Your task to perform on an android device: Show me popular games on the Play Store Image 0: 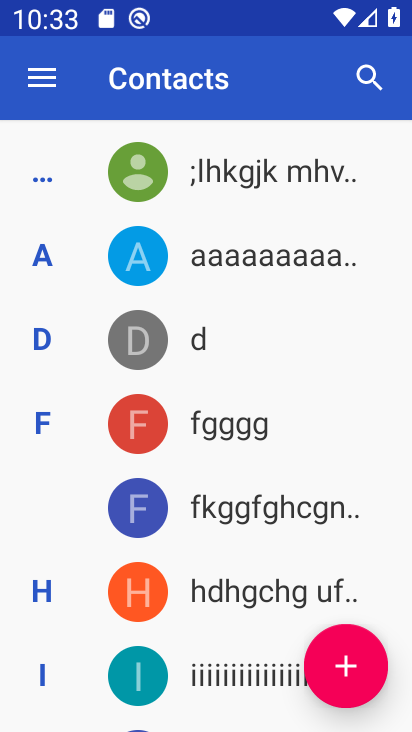
Step 0: press home button
Your task to perform on an android device: Show me popular games on the Play Store Image 1: 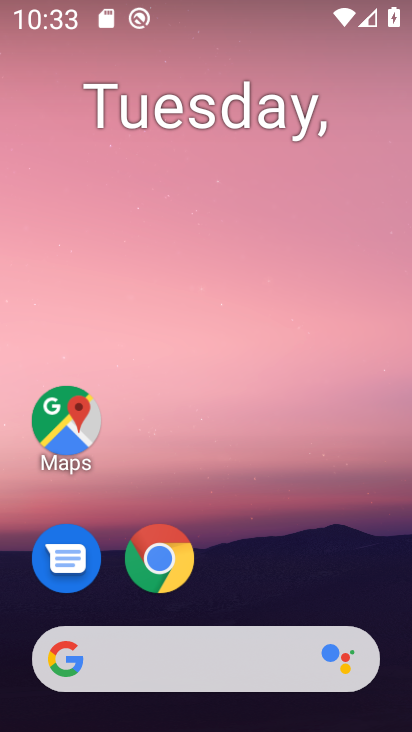
Step 1: drag from (331, 590) to (340, 88)
Your task to perform on an android device: Show me popular games on the Play Store Image 2: 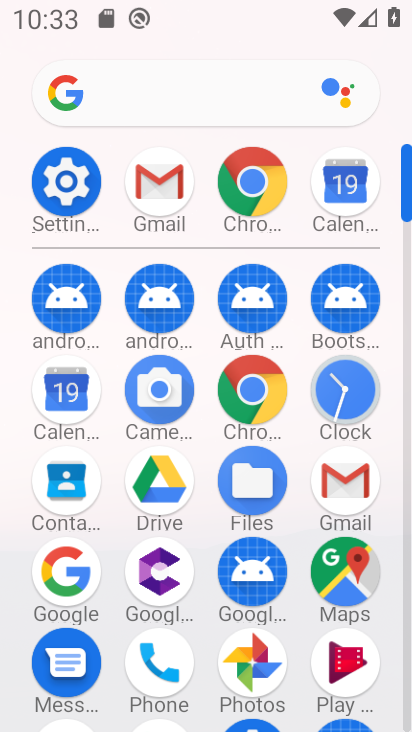
Step 2: drag from (387, 523) to (397, 271)
Your task to perform on an android device: Show me popular games on the Play Store Image 3: 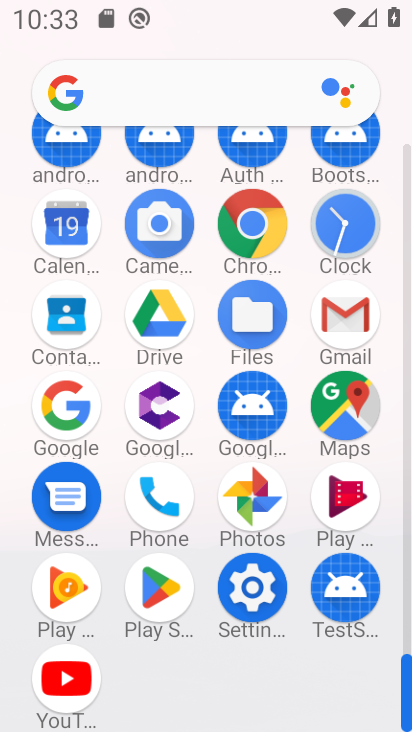
Step 3: click (163, 587)
Your task to perform on an android device: Show me popular games on the Play Store Image 4: 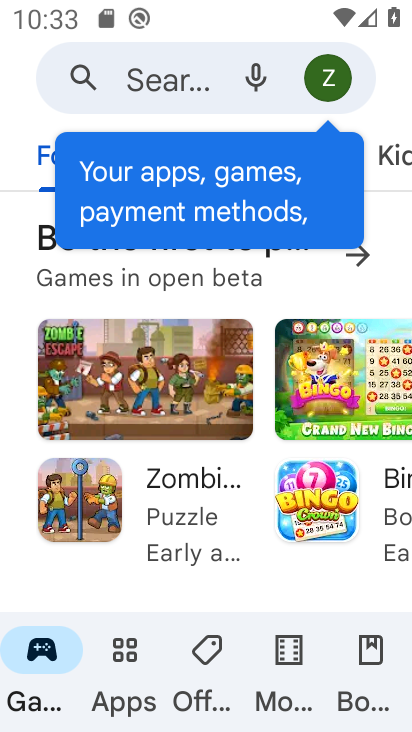
Step 4: task complete